Your task to perform on an android device: uninstall "File Manager" Image 0: 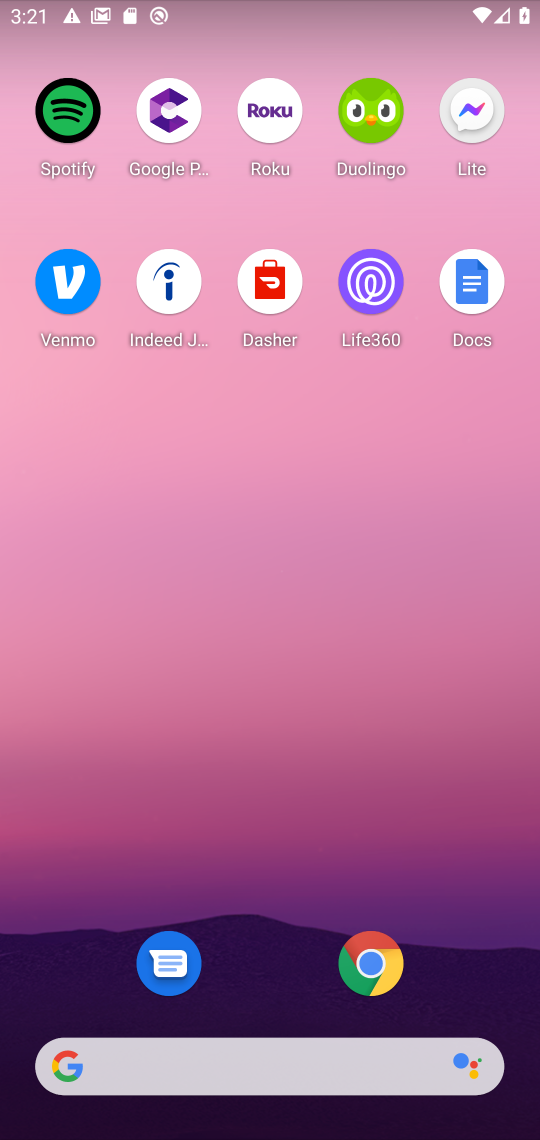
Step 0: drag from (217, 1041) to (358, 9)
Your task to perform on an android device: uninstall "File Manager" Image 1: 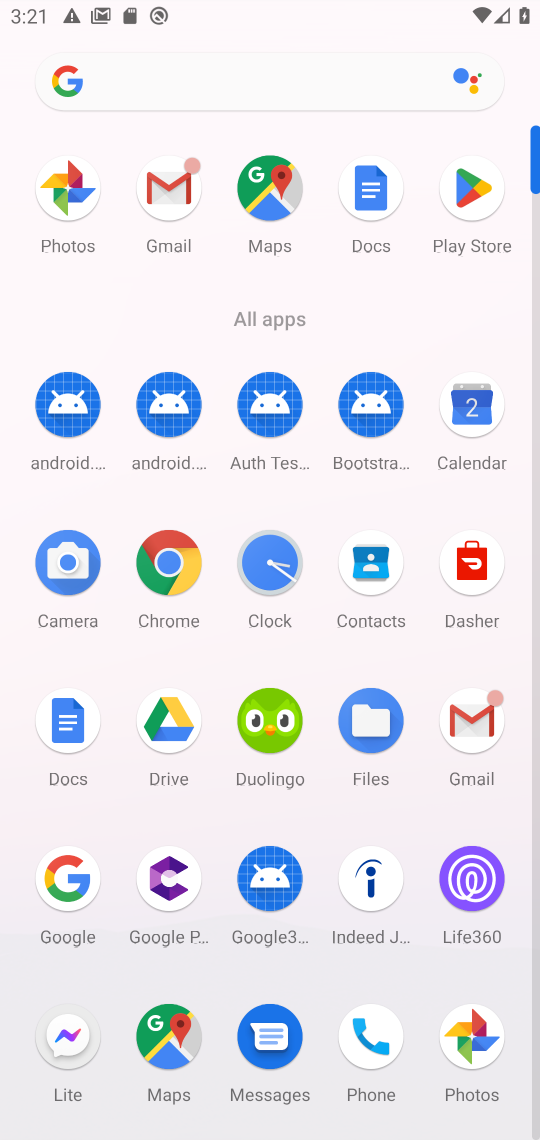
Step 1: click (481, 198)
Your task to perform on an android device: uninstall "File Manager" Image 2: 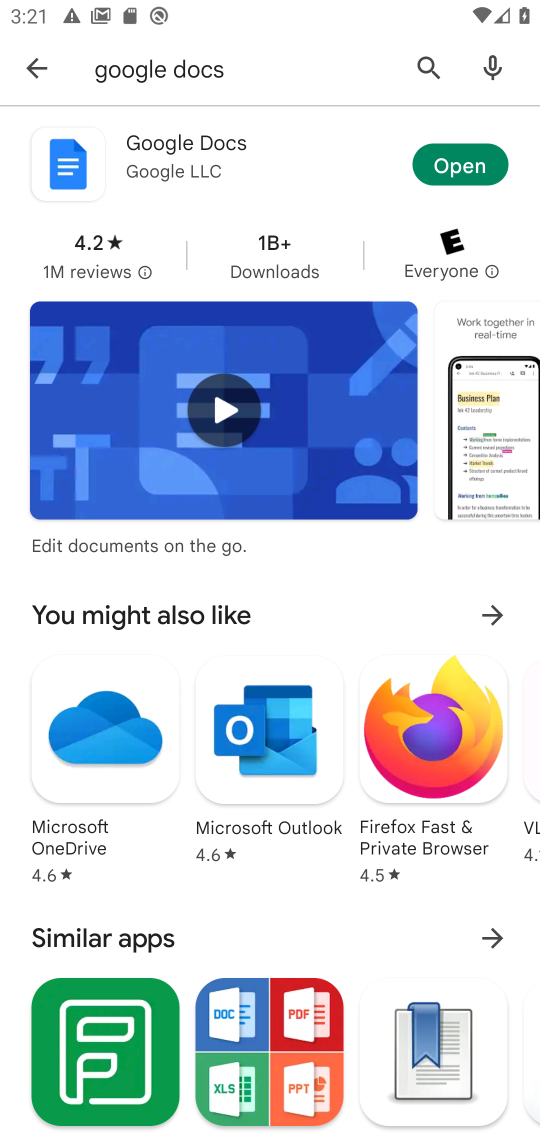
Step 2: click (417, 69)
Your task to perform on an android device: uninstall "File Manager" Image 3: 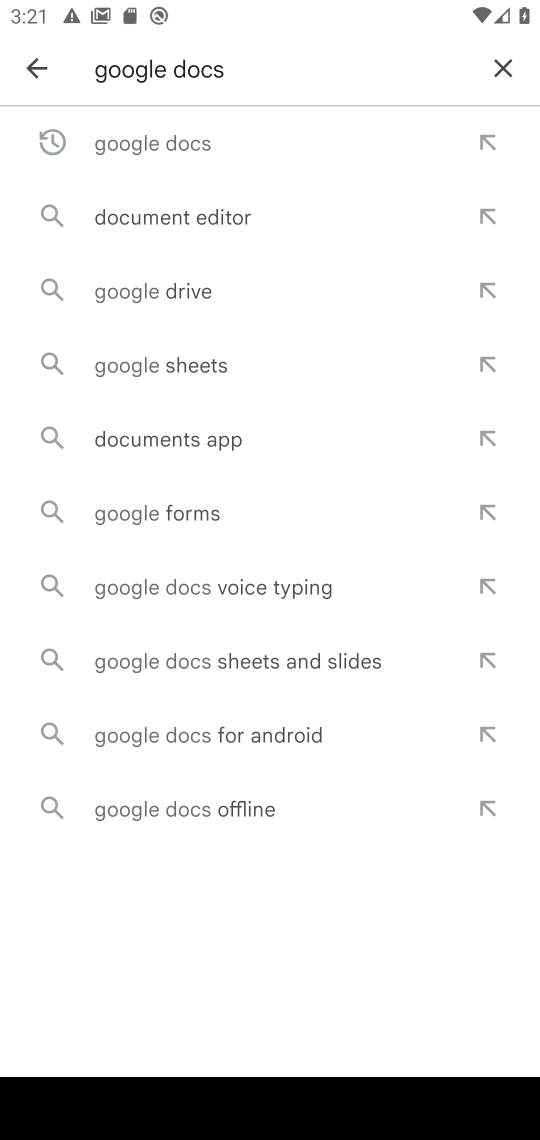
Step 3: click (512, 74)
Your task to perform on an android device: uninstall "File Manager" Image 4: 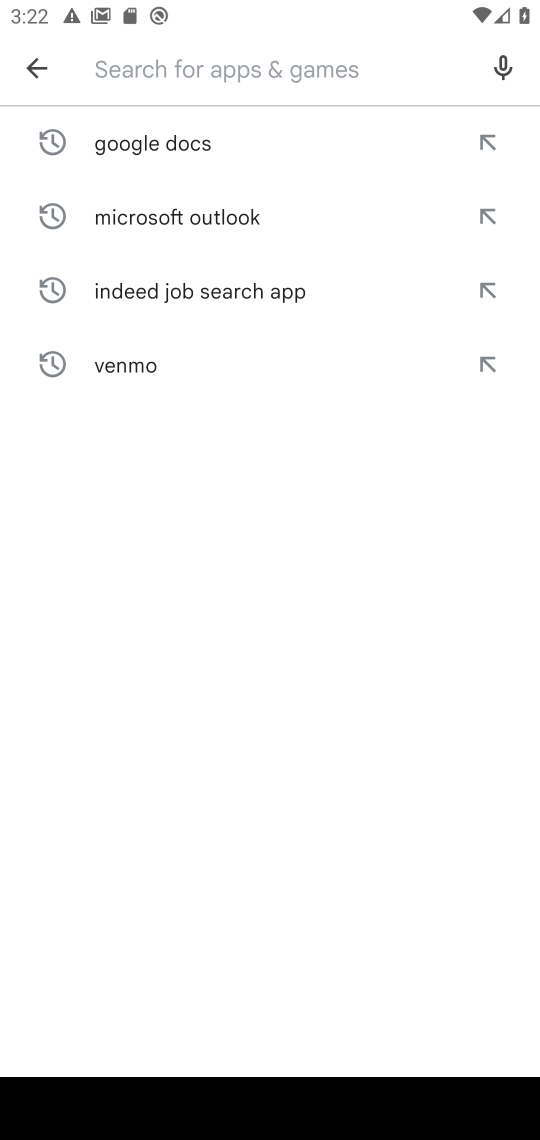
Step 4: type "File Manager"
Your task to perform on an android device: uninstall "File Manager" Image 5: 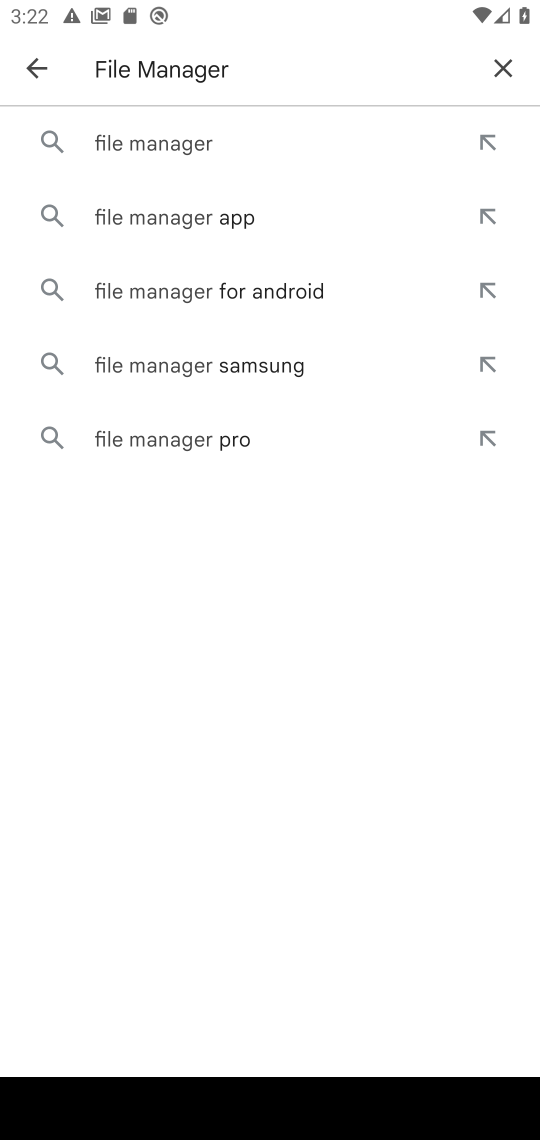
Step 5: click (179, 136)
Your task to perform on an android device: uninstall "File Manager" Image 6: 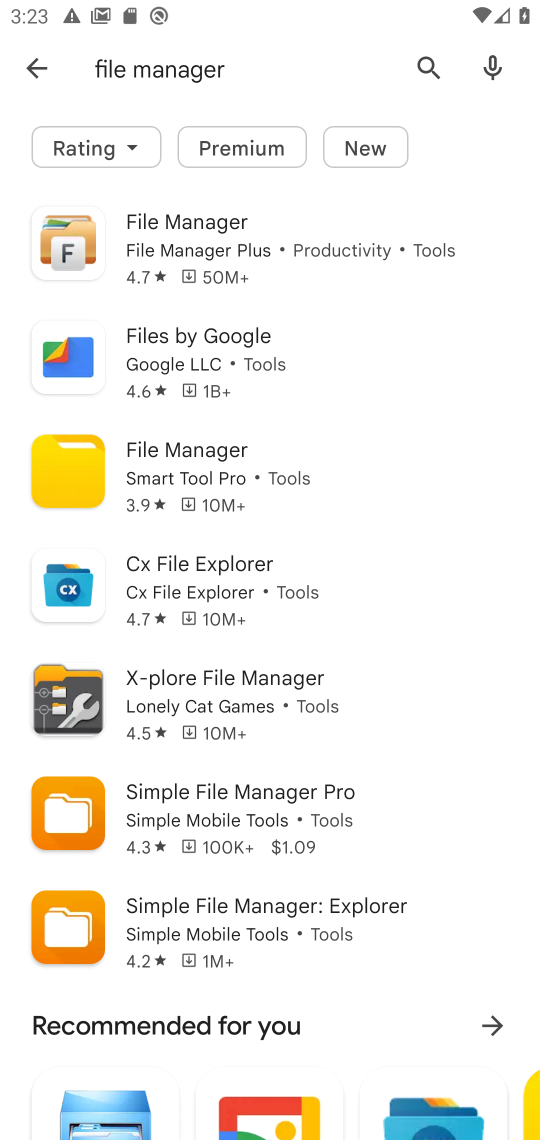
Step 6: click (217, 463)
Your task to perform on an android device: uninstall "File Manager" Image 7: 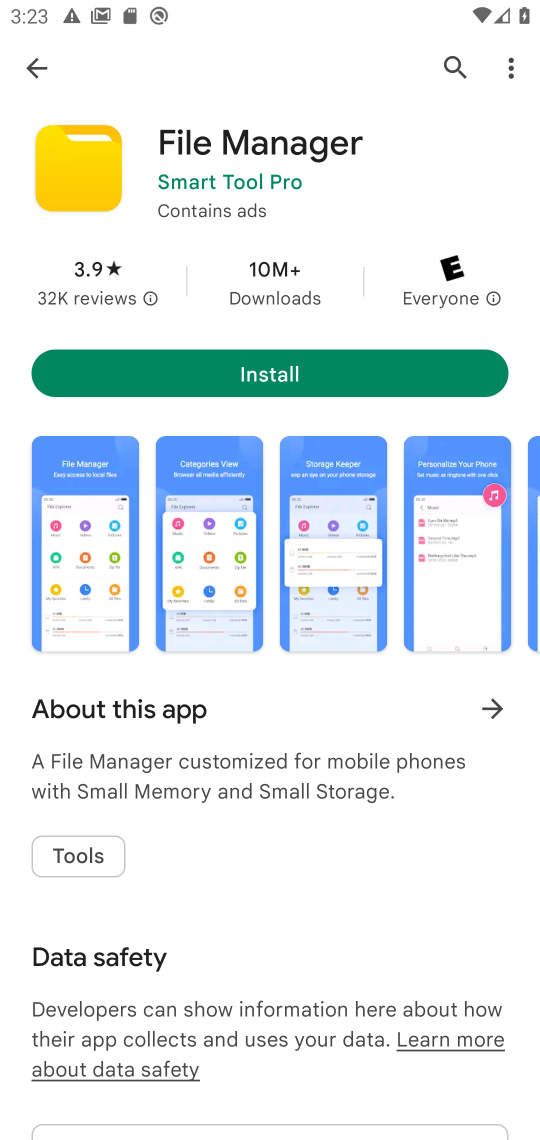
Step 7: task complete